Your task to perform on an android device: open wifi settings Image 0: 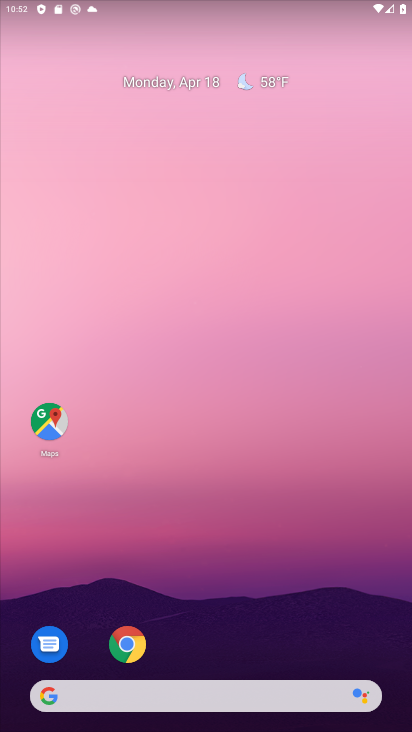
Step 0: drag from (199, 669) to (225, 120)
Your task to perform on an android device: open wifi settings Image 1: 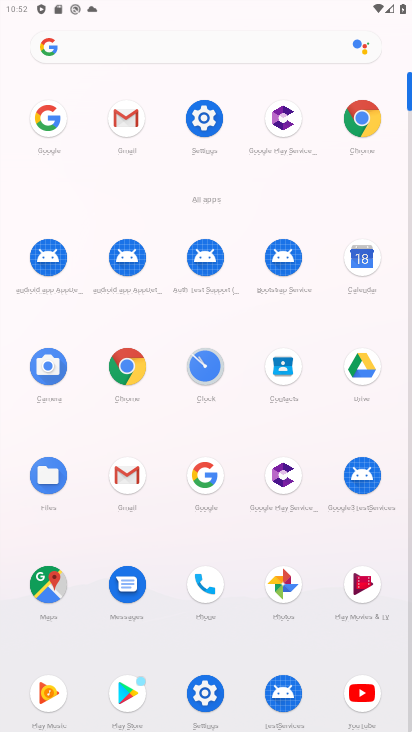
Step 1: click (202, 121)
Your task to perform on an android device: open wifi settings Image 2: 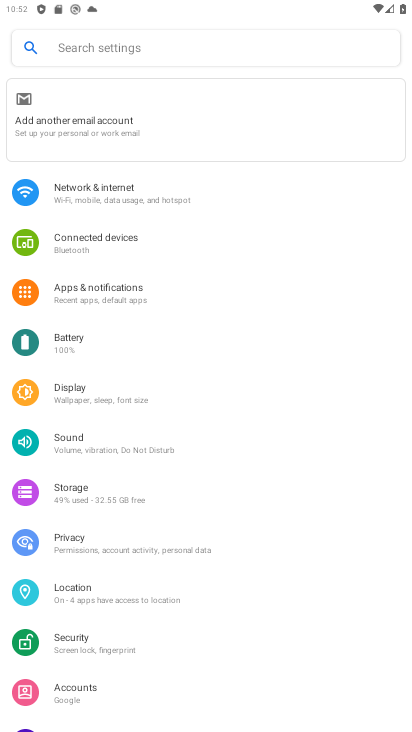
Step 2: drag from (187, 636) to (214, 543)
Your task to perform on an android device: open wifi settings Image 3: 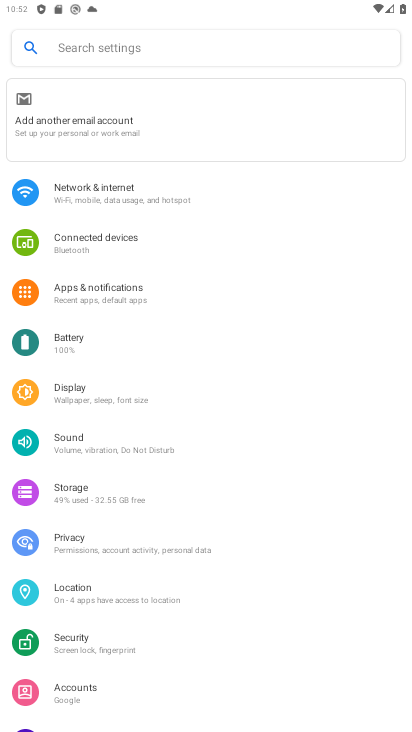
Step 3: click (113, 197)
Your task to perform on an android device: open wifi settings Image 4: 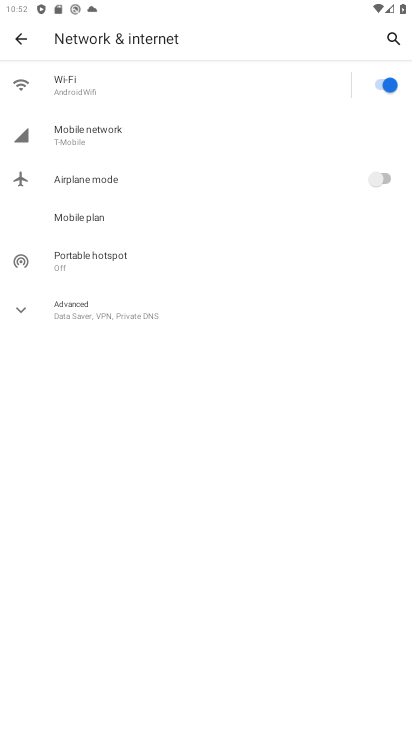
Step 4: click (63, 82)
Your task to perform on an android device: open wifi settings Image 5: 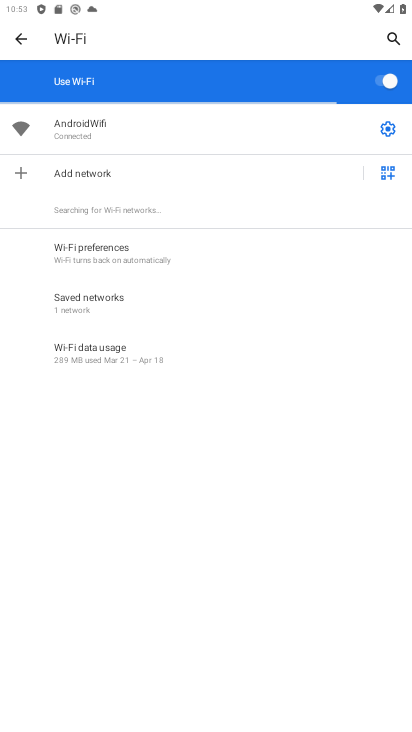
Step 5: task complete